Your task to perform on an android device: Show me popular games on the Play Store Image 0: 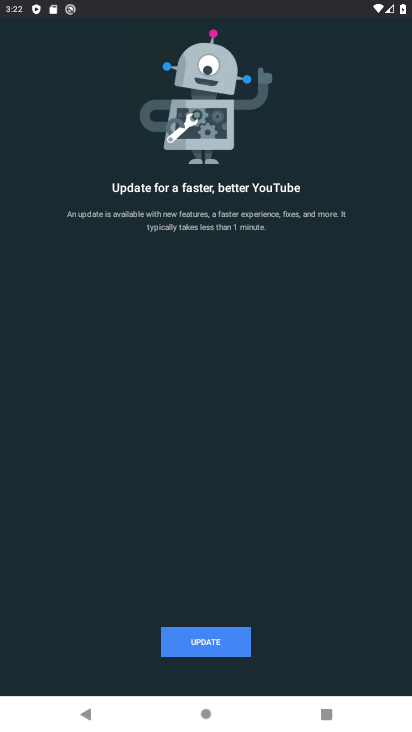
Step 0: click (178, 665)
Your task to perform on an android device: Show me popular games on the Play Store Image 1: 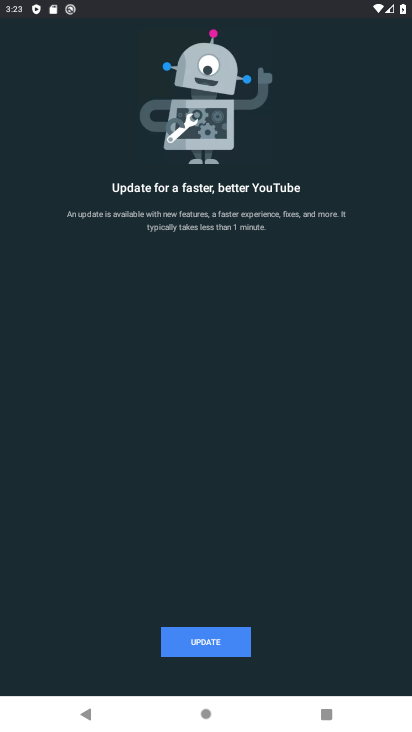
Step 1: click (187, 650)
Your task to perform on an android device: Show me popular games on the Play Store Image 2: 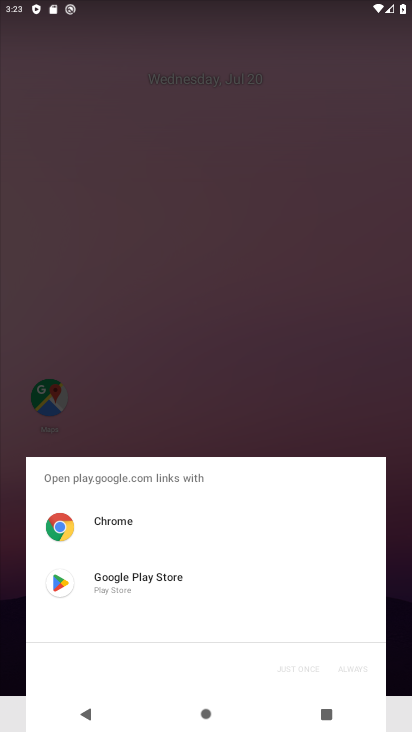
Step 2: click (188, 603)
Your task to perform on an android device: Show me popular games on the Play Store Image 3: 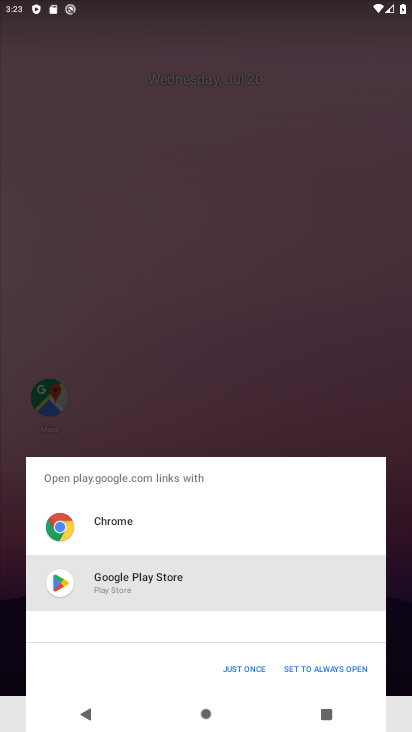
Step 3: click (236, 670)
Your task to perform on an android device: Show me popular games on the Play Store Image 4: 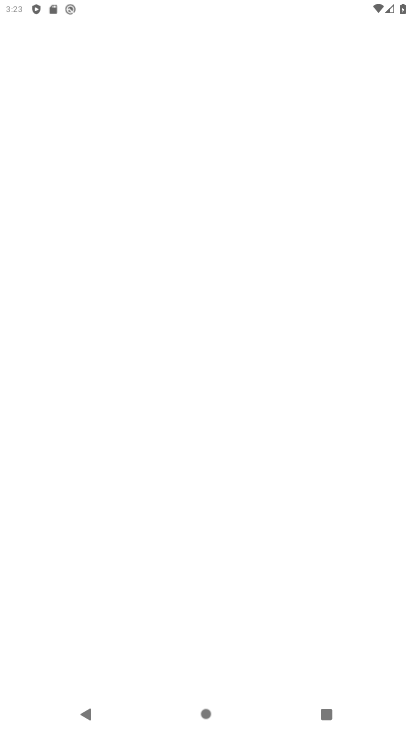
Step 4: task complete